Your task to perform on an android device: change timer sound Image 0: 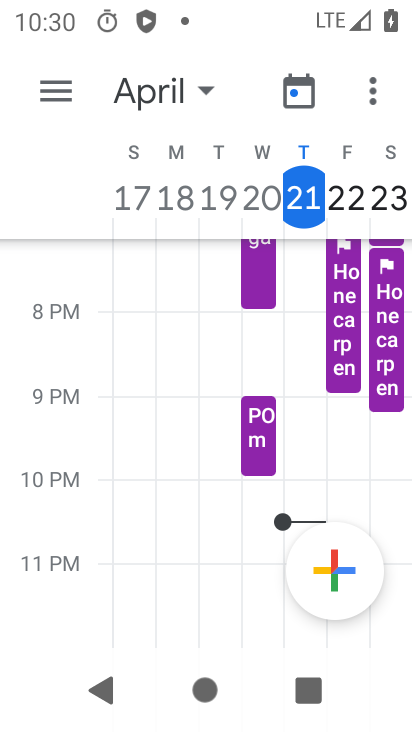
Step 0: press home button
Your task to perform on an android device: change timer sound Image 1: 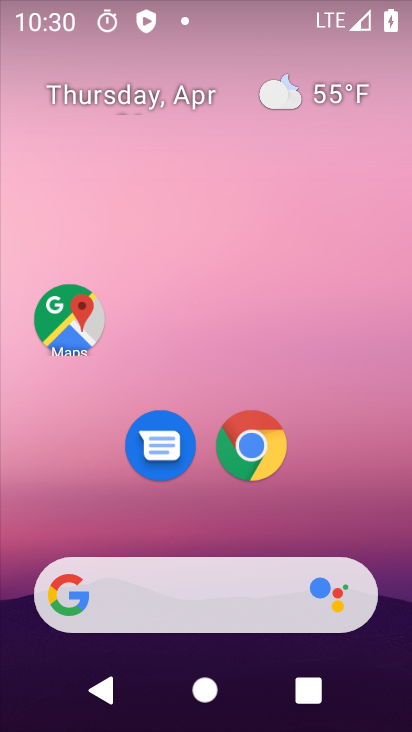
Step 1: drag from (394, 576) to (408, 7)
Your task to perform on an android device: change timer sound Image 2: 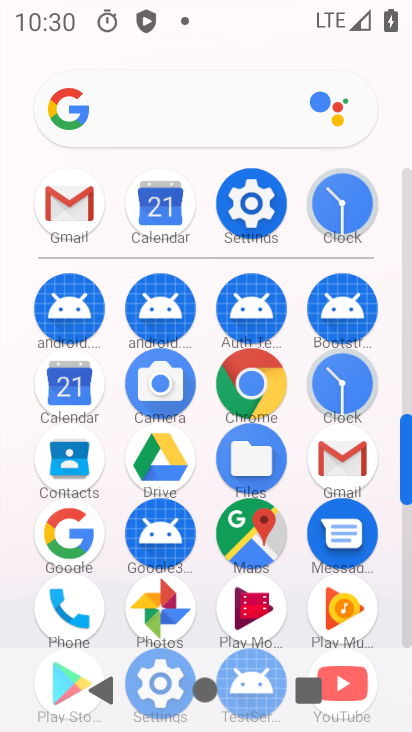
Step 2: click (339, 214)
Your task to perform on an android device: change timer sound Image 3: 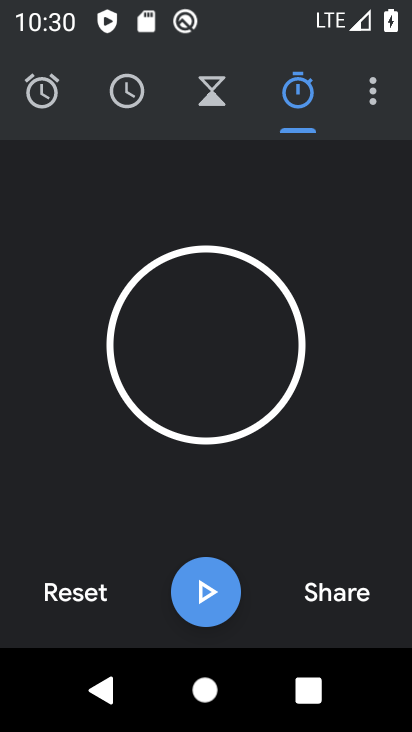
Step 3: click (370, 102)
Your task to perform on an android device: change timer sound Image 4: 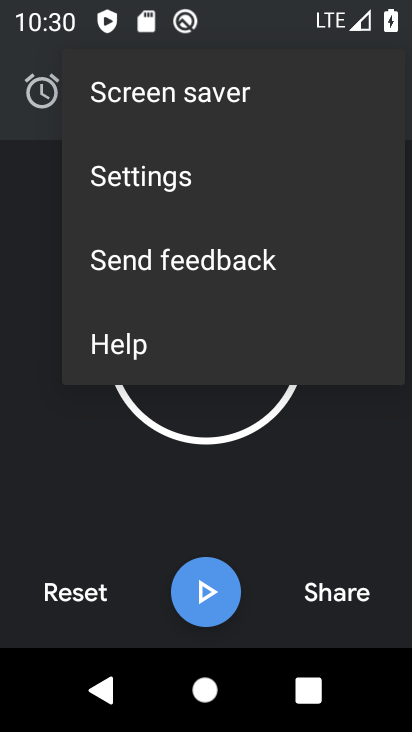
Step 4: click (148, 195)
Your task to perform on an android device: change timer sound Image 5: 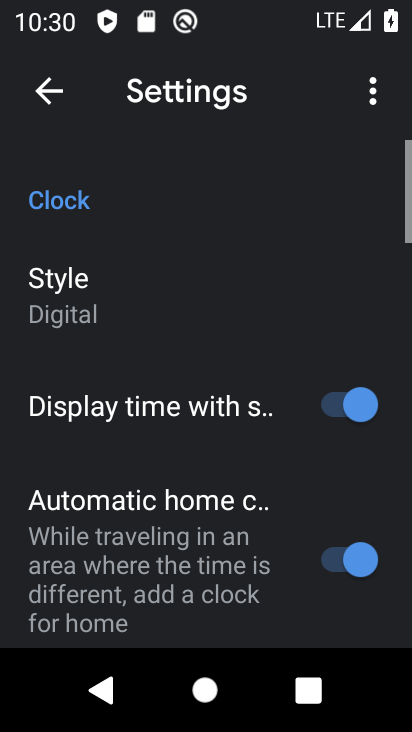
Step 5: drag from (210, 516) to (176, 52)
Your task to perform on an android device: change timer sound Image 6: 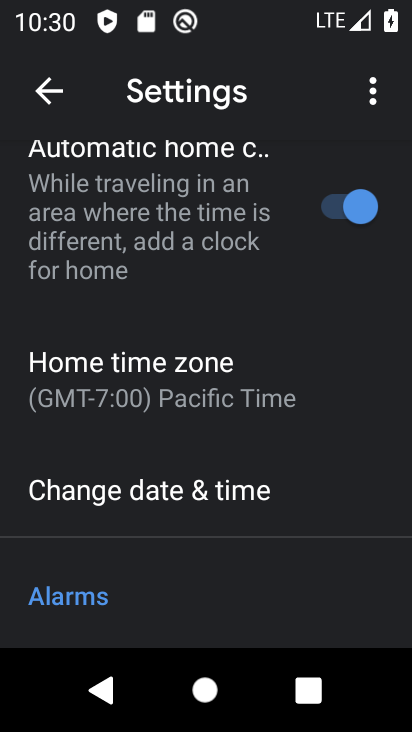
Step 6: drag from (211, 515) to (149, 47)
Your task to perform on an android device: change timer sound Image 7: 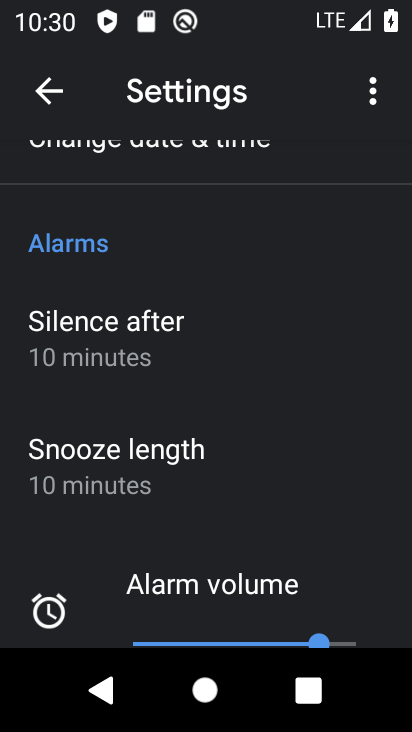
Step 7: drag from (152, 434) to (114, 120)
Your task to perform on an android device: change timer sound Image 8: 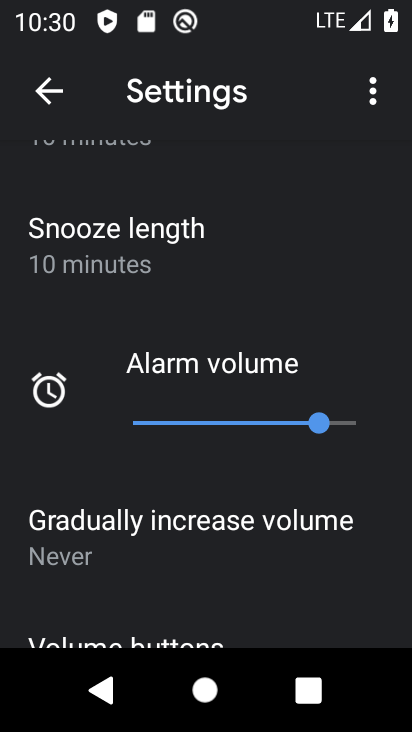
Step 8: drag from (148, 415) to (130, 37)
Your task to perform on an android device: change timer sound Image 9: 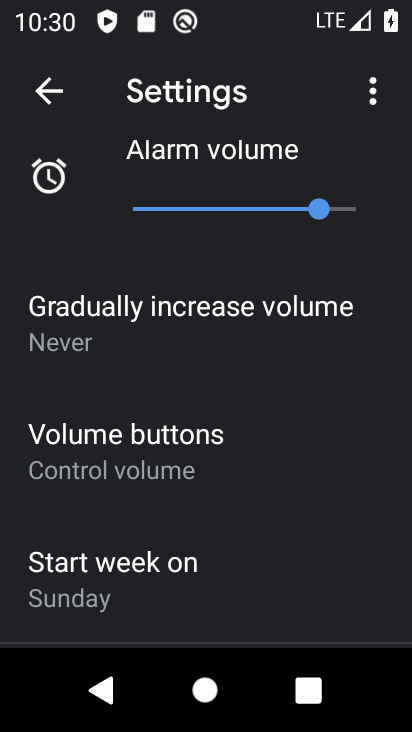
Step 9: drag from (142, 444) to (106, 79)
Your task to perform on an android device: change timer sound Image 10: 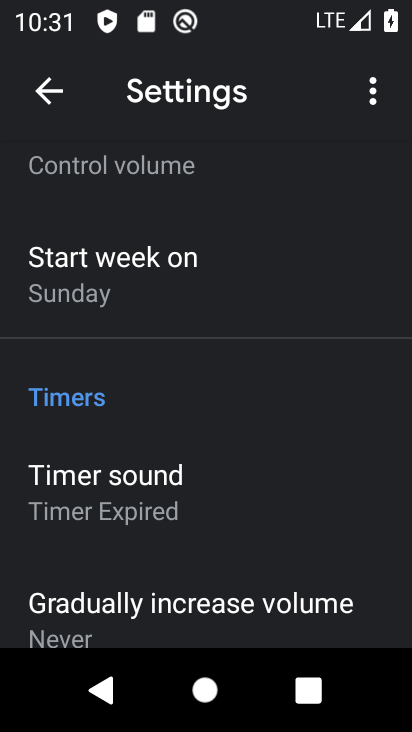
Step 10: drag from (114, 435) to (83, 190)
Your task to perform on an android device: change timer sound Image 11: 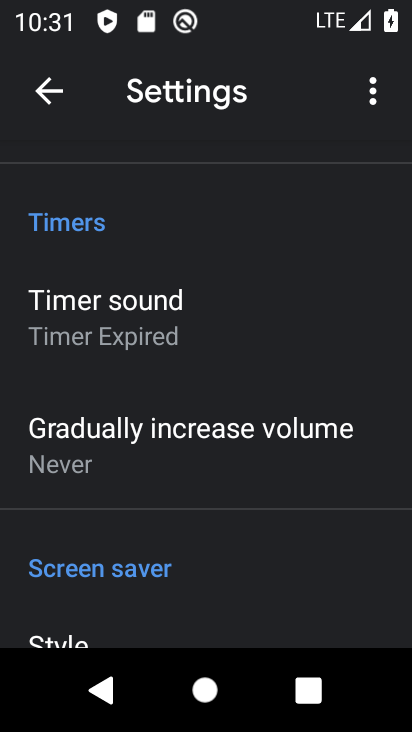
Step 11: click (70, 327)
Your task to perform on an android device: change timer sound Image 12: 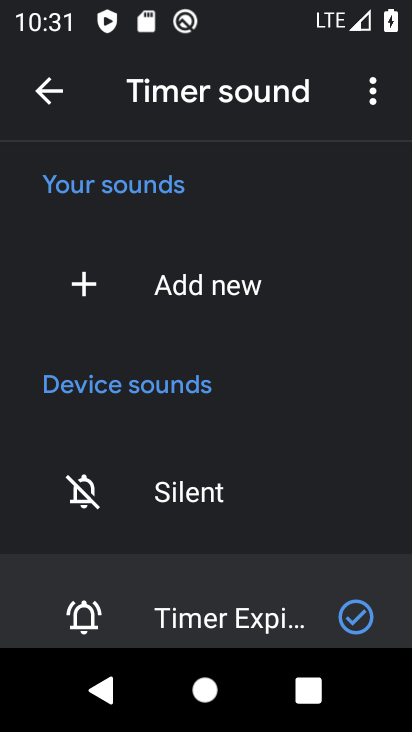
Step 12: drag from (292, 485) to (259, 144)
Your task to perform on an android device: change timer sound Image 13: 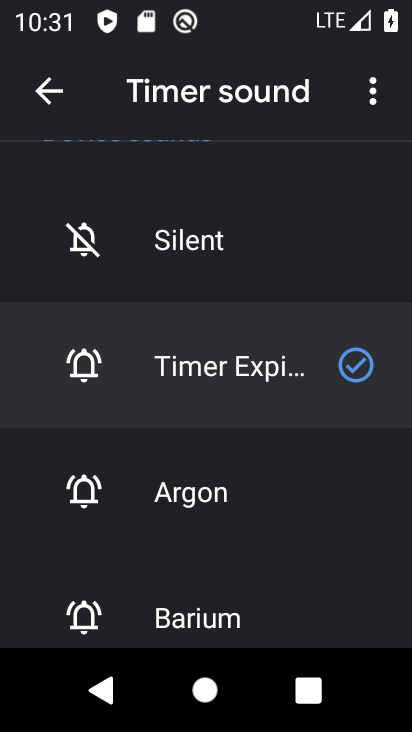
Step 13: drag from (269, 488) to (221, 201)
Your task to perform on an android device: change timer sound Image 14: 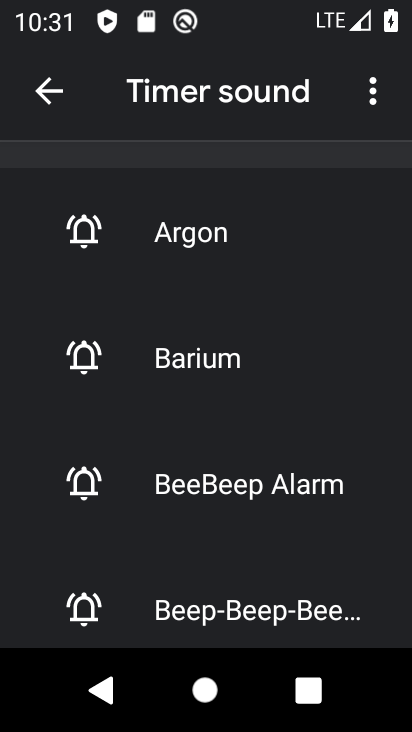
Step 14: click (187, 364)
Your task to perform on an android device: change timer sound Image 15: 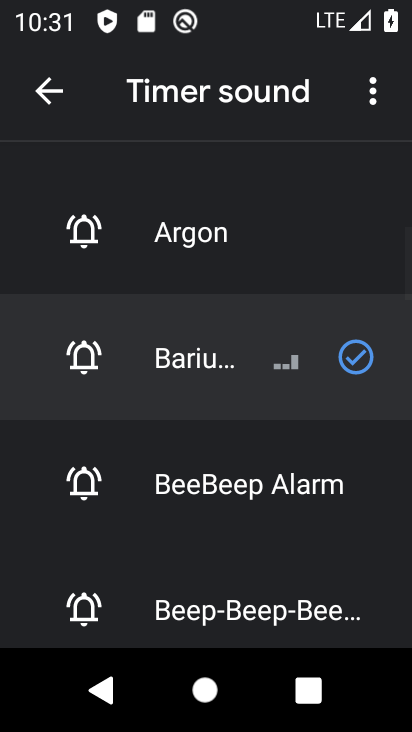
Step 15: task complete